Your task to perform on an android device: toggle show notifications on the lock screen Image 0: 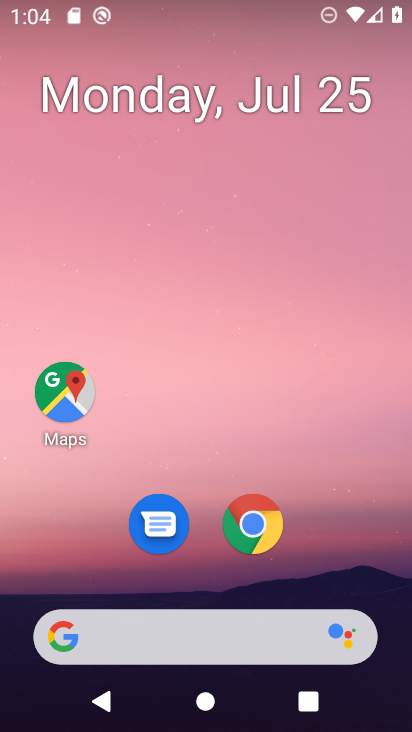
Step 0: drag from (185, 619) to (295, 7)
Your task to perform on an android device: toggle show notifications on the lock screen Image 1: 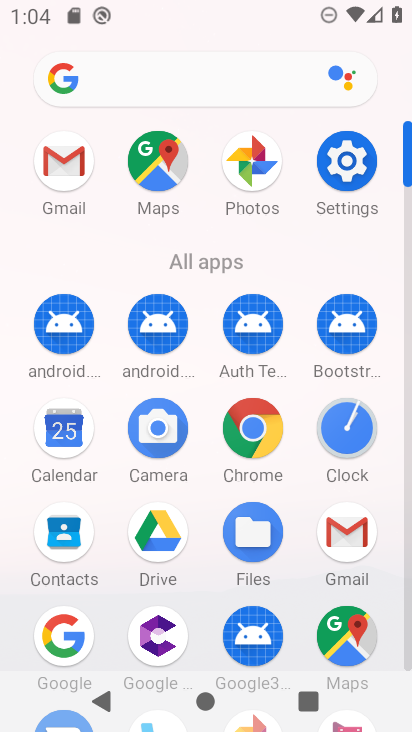
Step 1: click (343, 170)
Your task to perform on an android device: toggle show notifications on the lock screen Image 2: 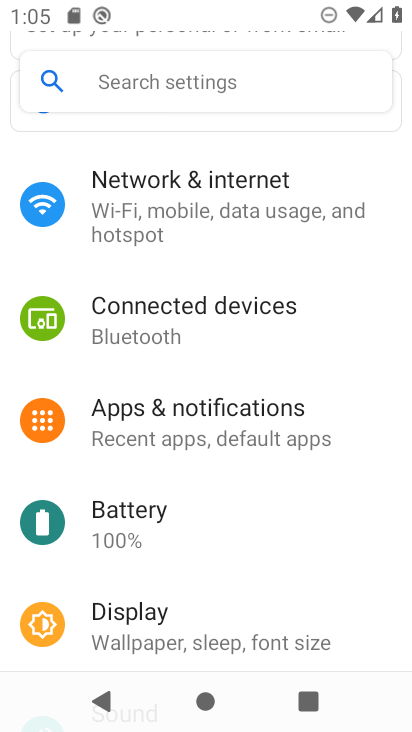
Step 2: click (262, 421)
Your task to perform on an android device: toggle show notifications on the lock screen Image 3: 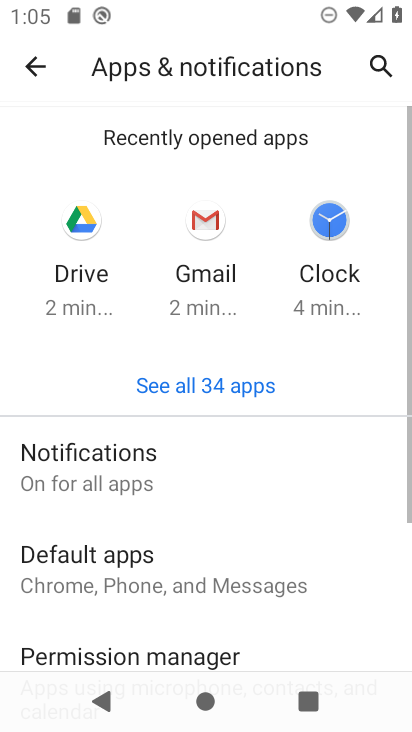
Step 3: click (59, 481)
Your task to perform on an android device: toggle show notifications on the lock screen Image 4: 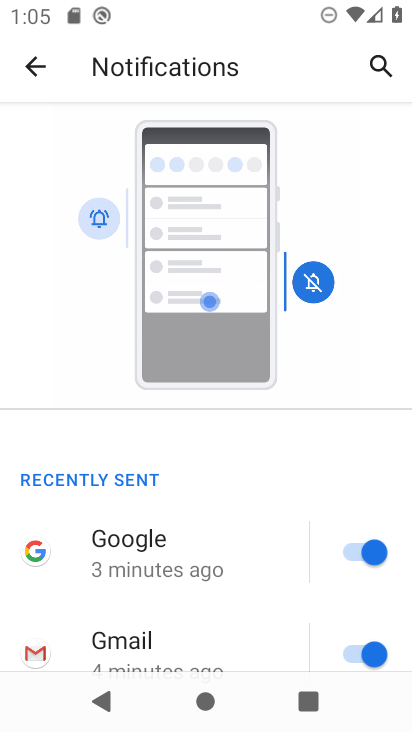
Step 4: drag from (225, 639) to (318, 205)
Your task to perform on an android device: toggle show notifications on the lock screen Image 5: 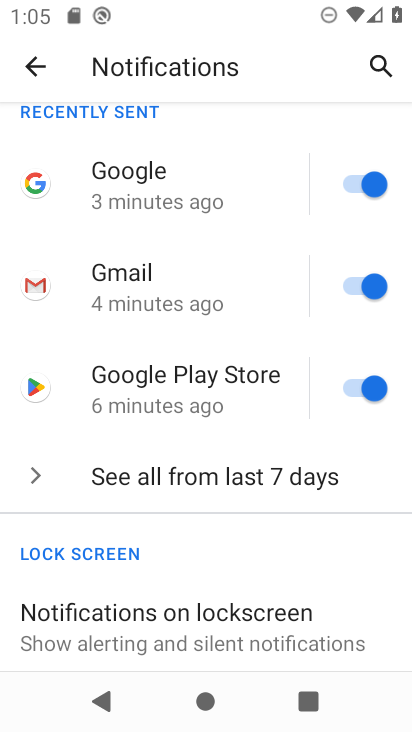
Step 5: drag from (257, 467) to (315, 185)
Your task to perform on an android device: toggle show notifications on the lock screen Image 6: 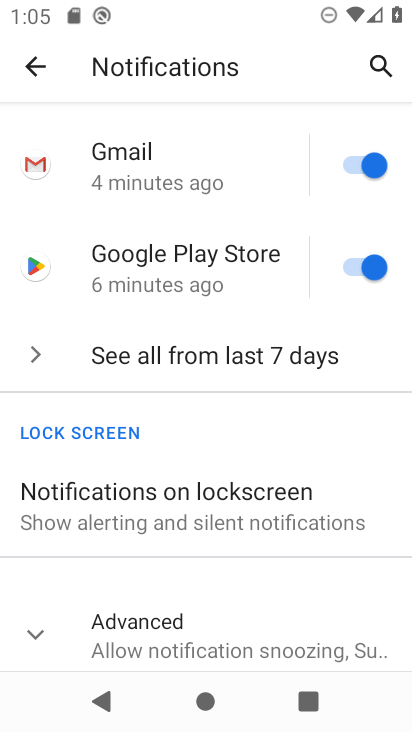
Step 6: click (205, 503)
Your task to perform on an android device: toggle show notifications on the lock screen Image 7: 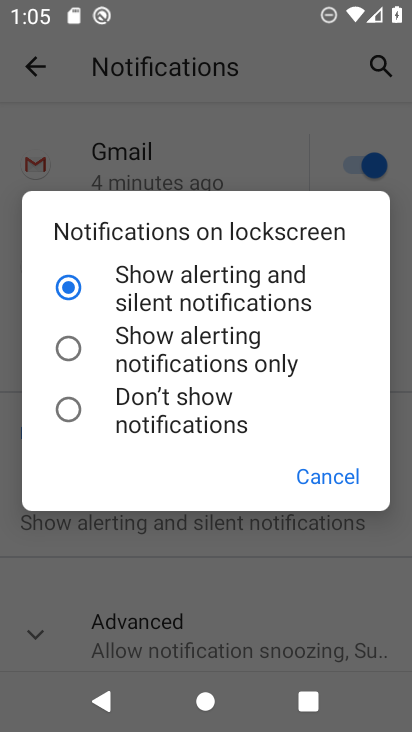
Step 7: click (69, 406)
Your task to perform on an android device: toggle show notifications on the lock screen Image 8: 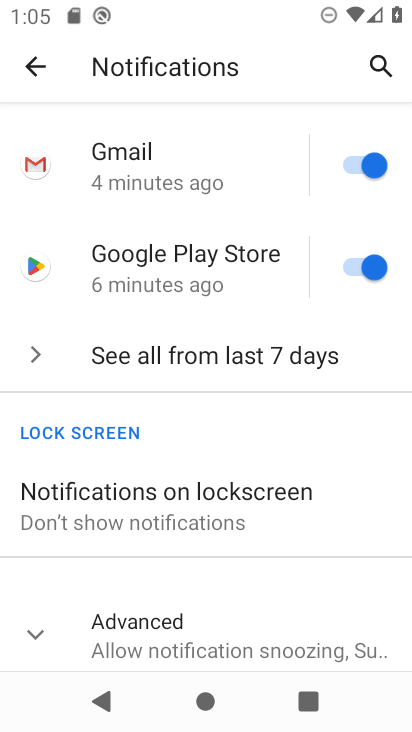
Step 8: task complete